Your task to perform on an android device: turn off javascript in the chrome app Image 0: 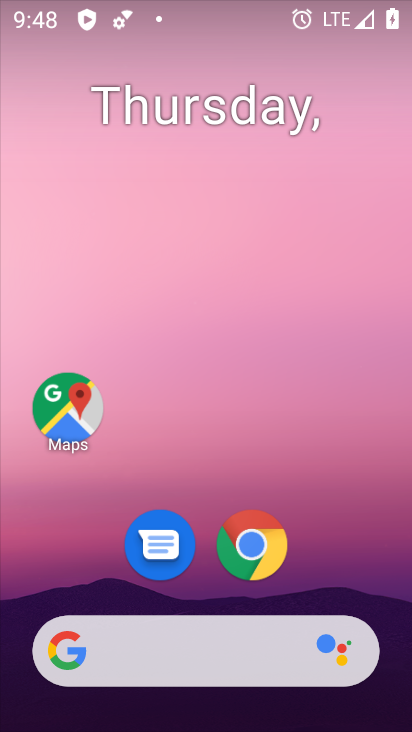
Step 0: click (254, 546)
Your task to perform on an android device: turn off javascript in the chrome app Image 1: 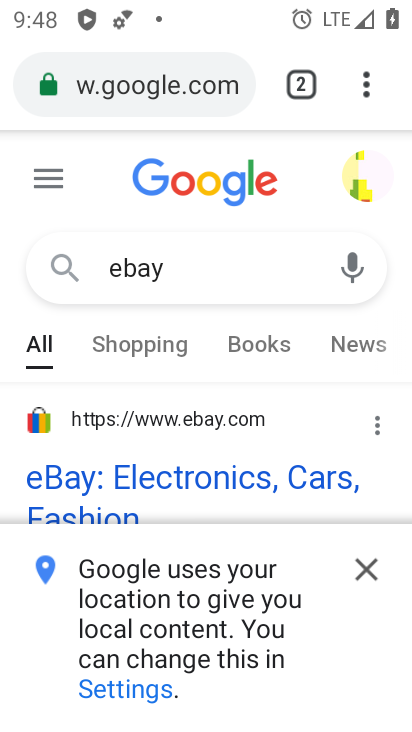
Step 1: click (369, 86)
Your task to perform on an android device: turn off javascript in the chrome app Image 2: 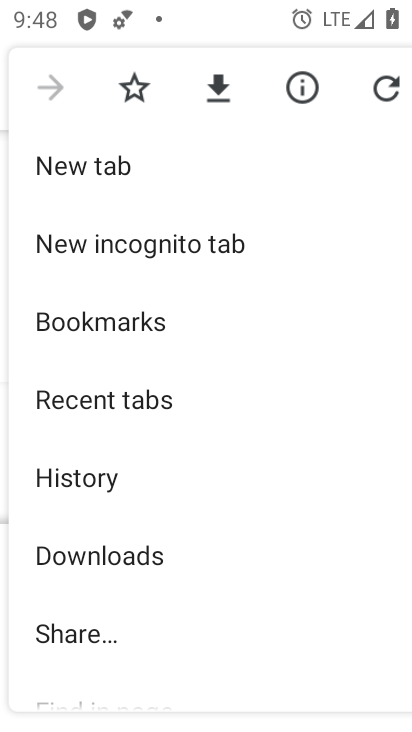
Step 2: drag from (201, 430) to (156, 180)
Your task to perform on an android device: turn off javascript in the chrome app Image 3: 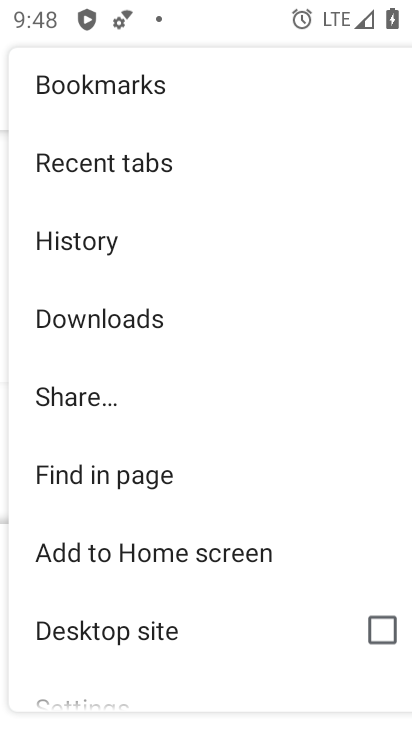
Step 3: drag from (229, 576) to (192, 152)
Your task to perform on an android device: turn off javascript in the chrome app Image 4: 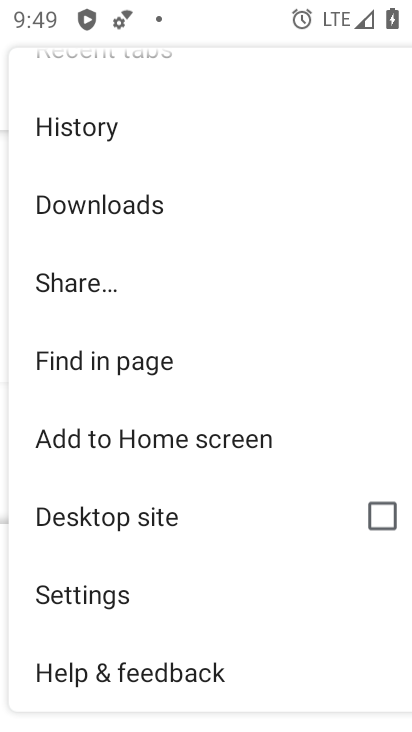
Step 4: click (82, 599)
Your task to perform on an android device: turn off javascript in the chrome app Image 5: 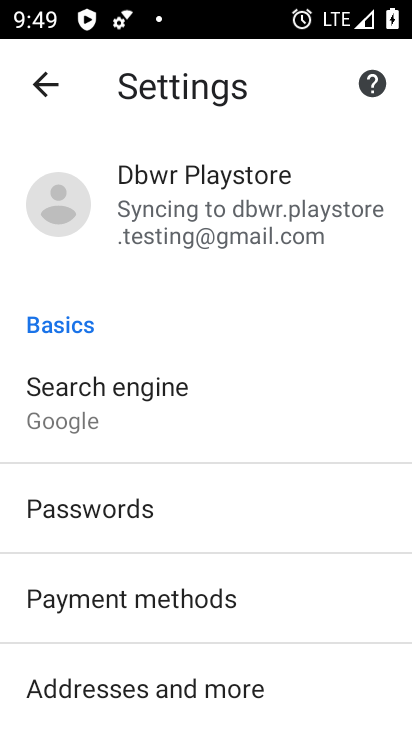
Step 5: drag from (266, 502) to (264, 189)
Your task to perform on an android device: turn off javascript in the chrome app Image 6: 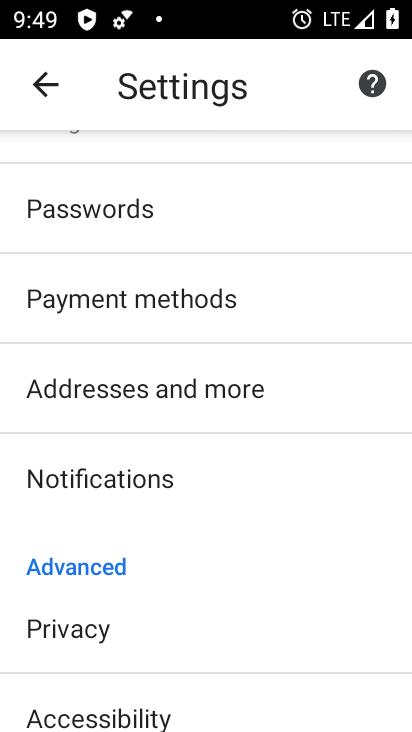
Step 6: drag from (163, 540) to (166, 264)
Your task to perform on an android device: turn off javascript in the chrome app Image 7: 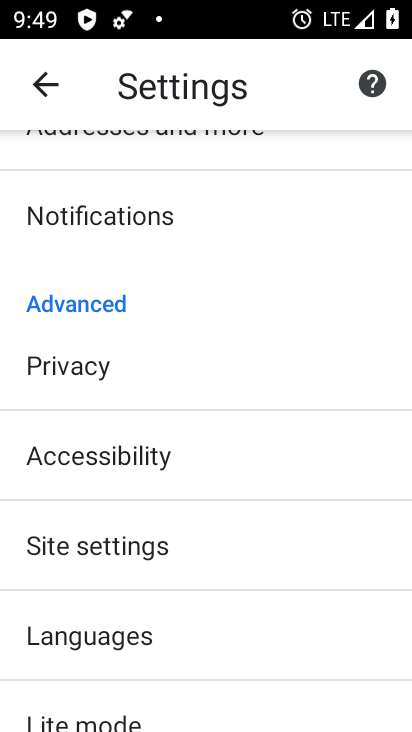
Step 7: click (122, 547)
Your task to perform on an android device: turn off javascript in the chrome app Image 8: 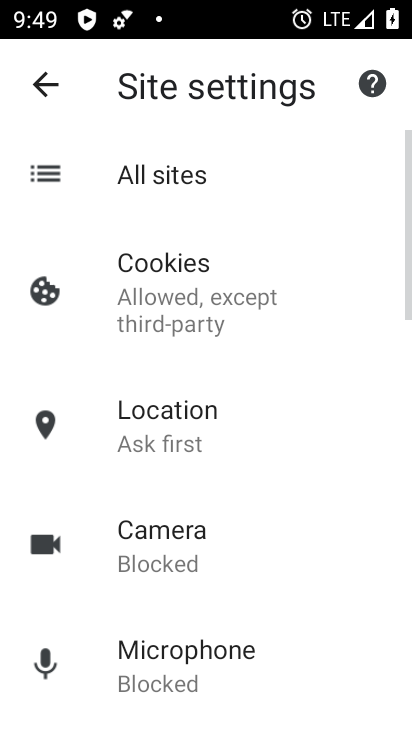
Step 8: drag from (298, 512) to (286, 165)
Your task to perform on an android device: turn off javascript in the chrome app Image 9: 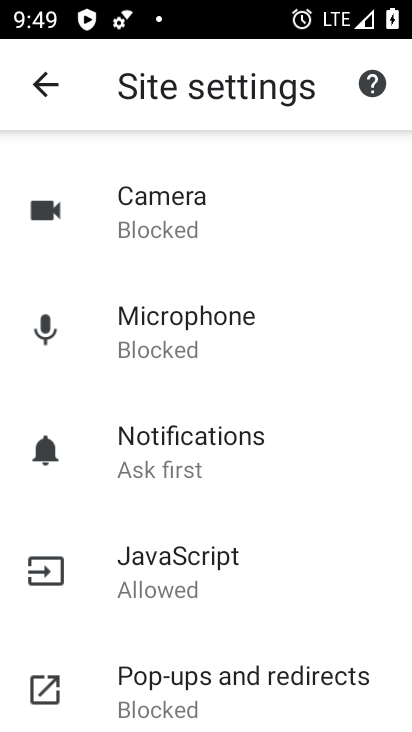
Step 9: click (174, 567)
Your task to perform on an android device: turn off javascript in the chrome app Image 10: 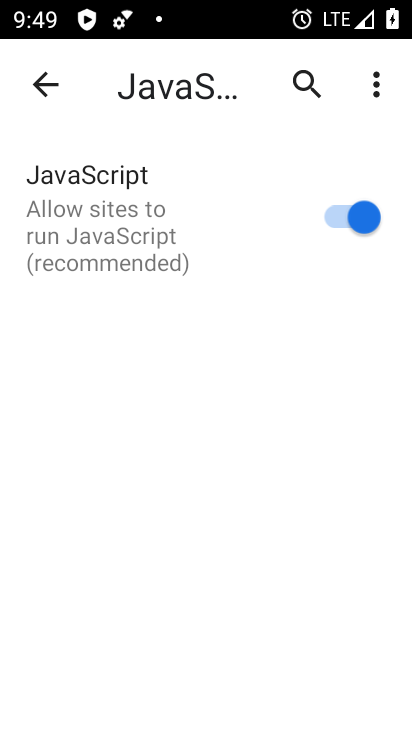
Step 10: click (174, 567)
Your task to perform on an android device: turn off javascript in the chrome app Image 11: 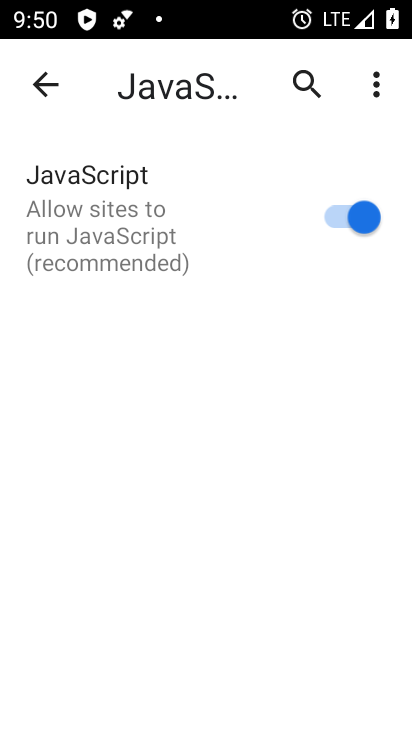
Step 11: click (365, 202)
Your task to perform on an android device: turn off javascript in the chrome app Image 12: 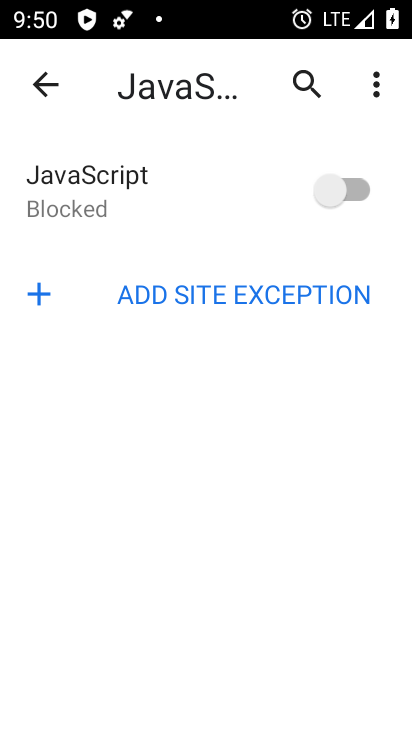
Step 12: task complete